Your task to perform on an android device: What's the weather? Image 0: 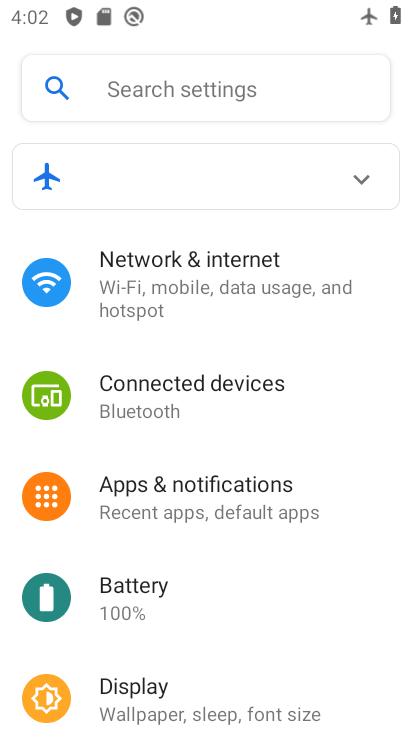
Step 0: press home button
Your task to perform on an android device: What's the weather? Image 1: 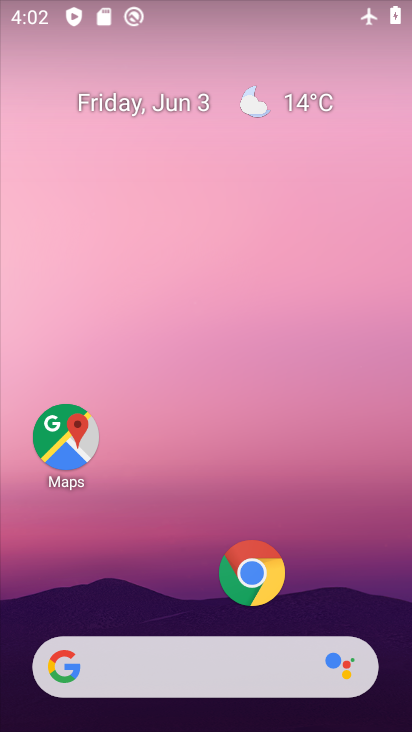
Step 1: drag from (143, 508) to (194, 106)
Your task to perform on an android device: What's the weather? Image 2: 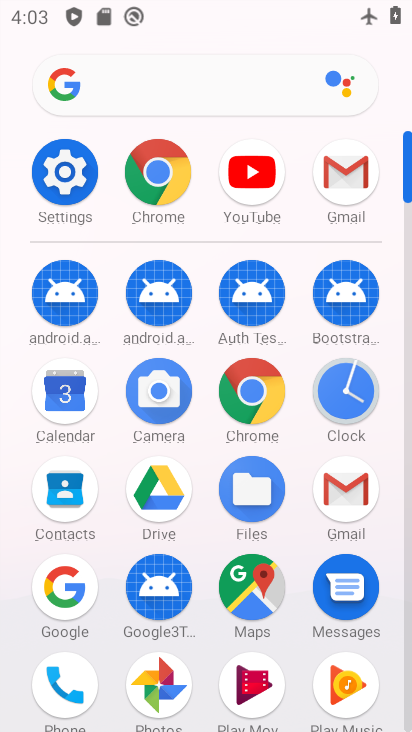
Step 2: click (69, 583)
Your task to perform on an android device: What's the weather? Image 3: 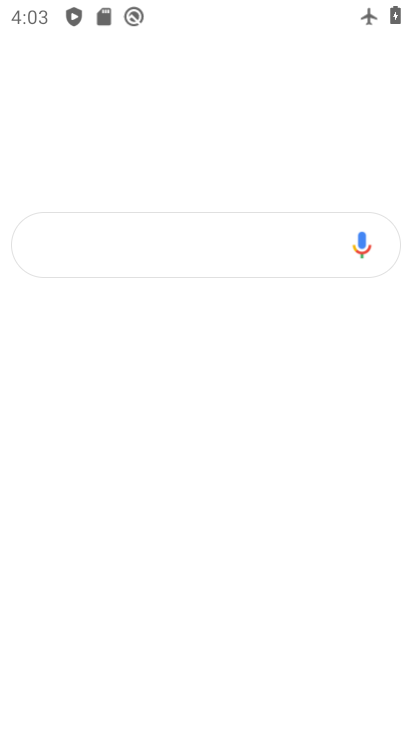
Step 3: click (69, 583)
Your task to perform on an android device: What's the weather? Image 4: 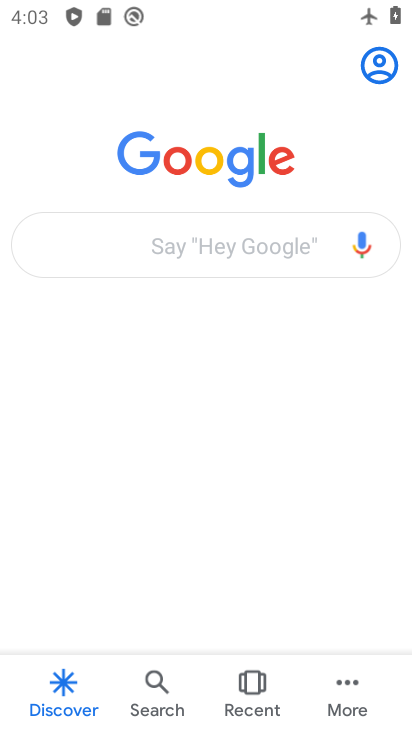
Step 4: click (188, 248)
Your task to perform on an android device: What's the weather? Image 5: 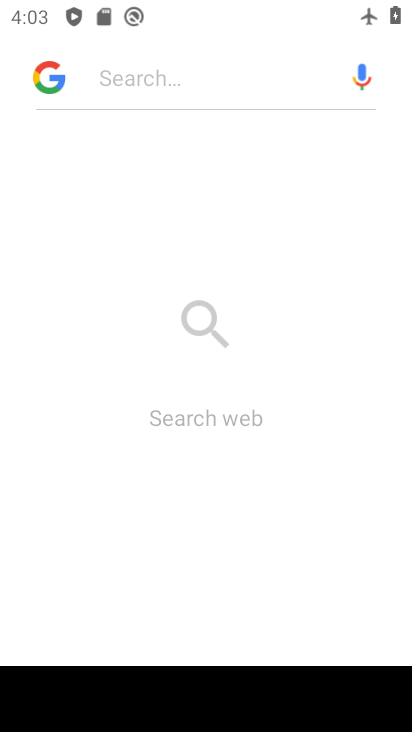
Step 5: type "weatther"
Your task to perform on an android device: What's the weather? Image 6: 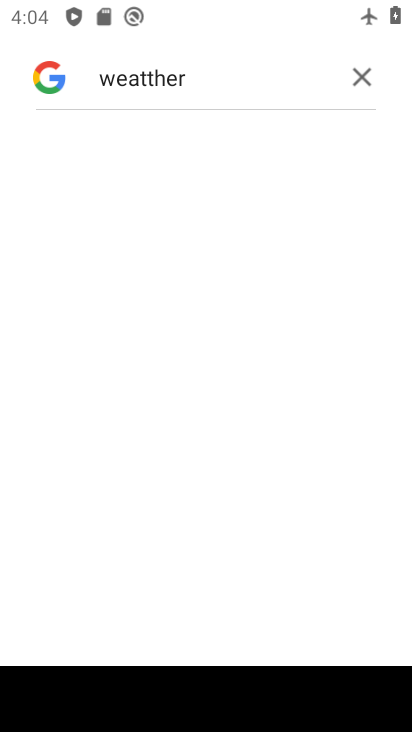
Step 6: task complete